Your task to perform on an android device: turn off improve location accuracy Image 0: 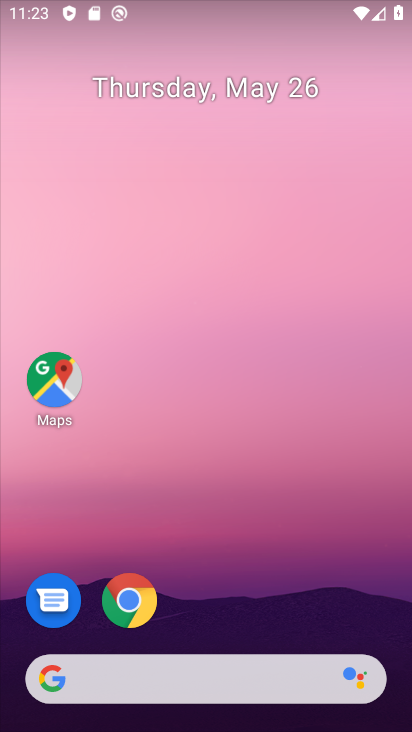
Step 0: drag from (243, 567) to (266, 58)
Your task to perform on an android device: turn off improve location accuracy Image 1: 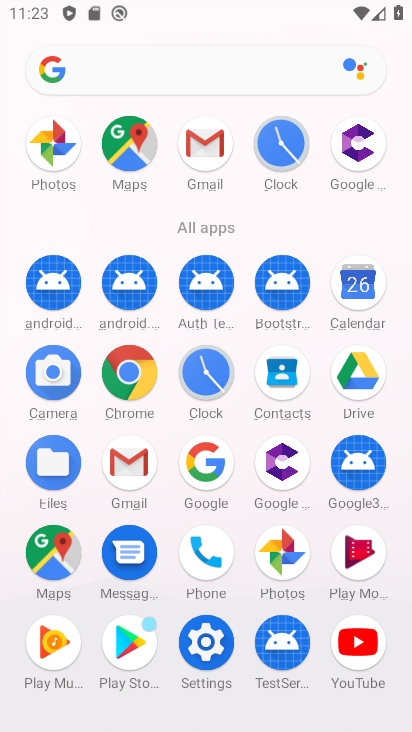
Step 1: click (208, 655)
Your task to perform on an android device: turn off improve location accuracy Image 2: 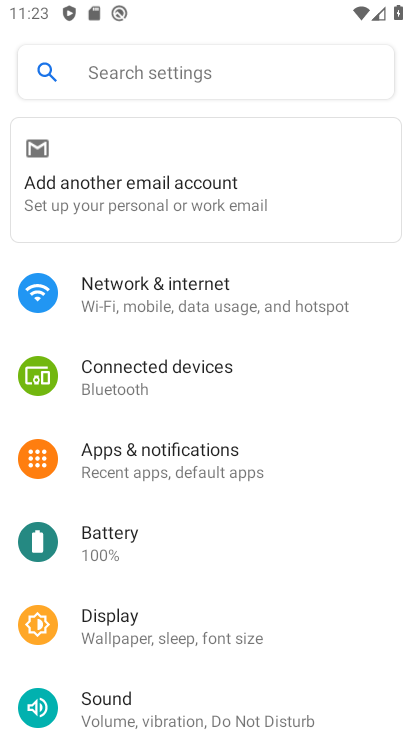
Step 2: drag from (230, 622) to (349, 4)
Your task to perform on an android device: turn off improve location accuracy Image 3: 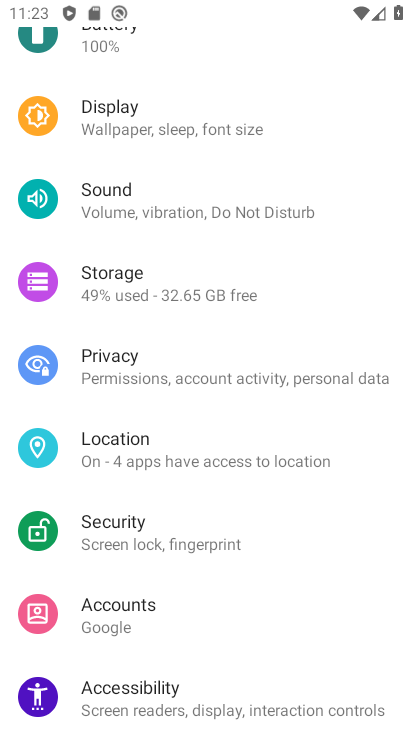
Step 3: click (129, 471)
Your task to perform on an android device: turn off improve location accuracy Image 4: 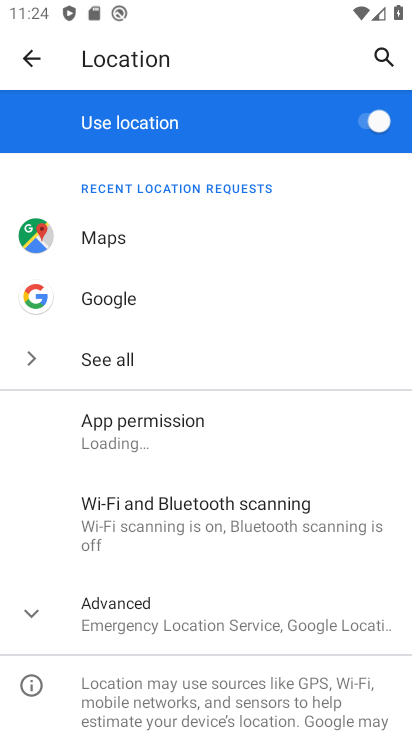
Step 4: drag from (259, 449) to (272, 201)
Your task to perform on an android device: turn off improve location accuracy Image 5: 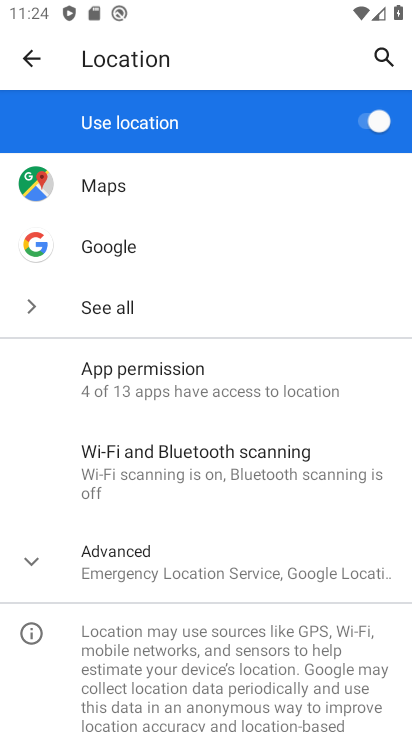
Step 5: click (158, 574)
Your task to perform on an android device: turn off improve location accuracy Image 6: 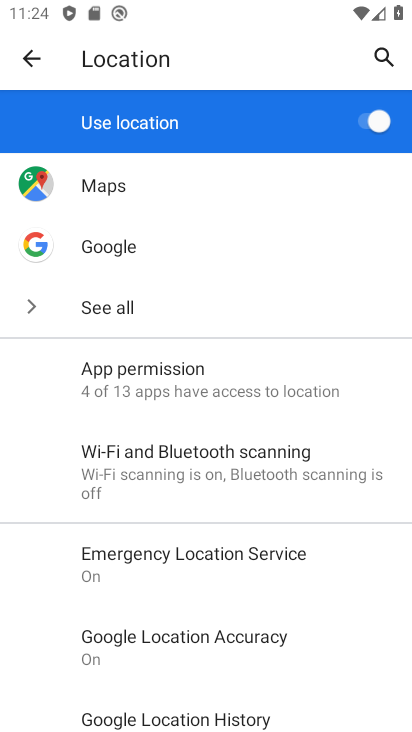
Step 6: click (151, 641)
Your task to perform on an android device: turn off improve location accuracy Image 7: 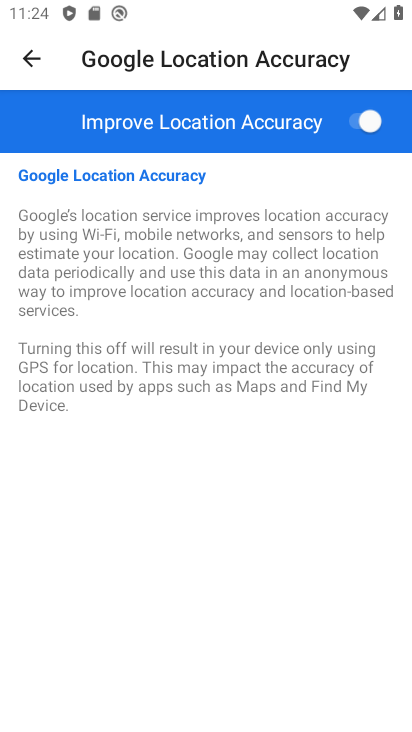
Step 7: click (151, 641)
Your task to perform on an android device: turn off improve location accuracy Image 8: 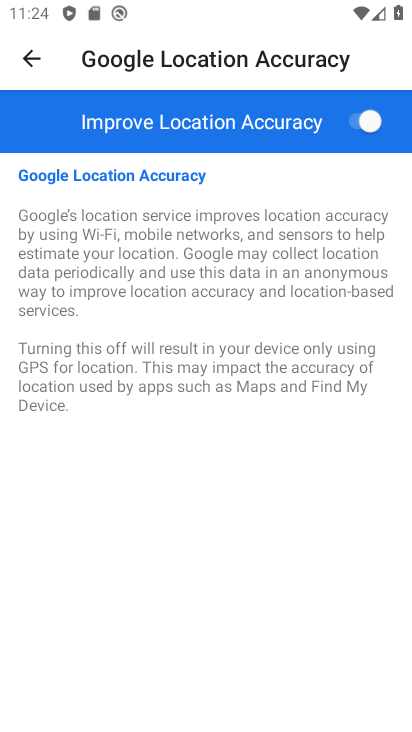
Step 8: click (356, 106)
Your task to perform on an android device: turn off improve location accuracy Image 9: 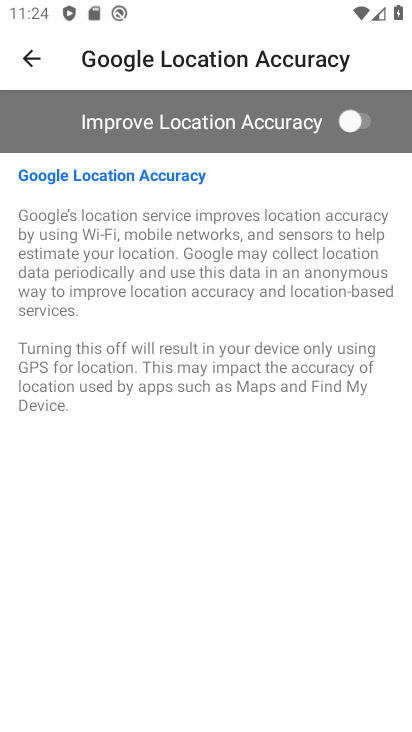
Step 9: task complete